Your task to perform on an android device: Turn off the flashlight Image 0: 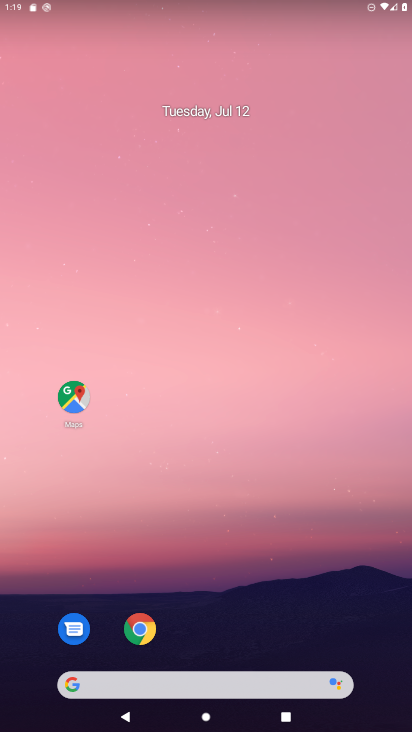
Step 0: drag from (215, 647) to (238, 0)
Your task to perform on an android device: Turn off the flashlight Image 1: 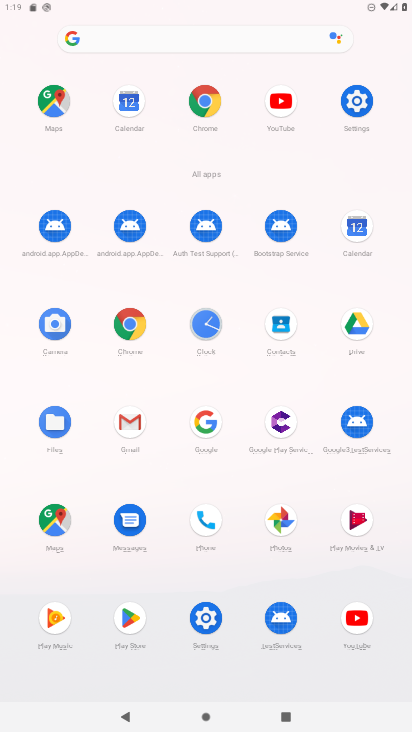
Step 1: click (363, 92)
Your task to perform on an android device: Turn off the flashlight Image 2: 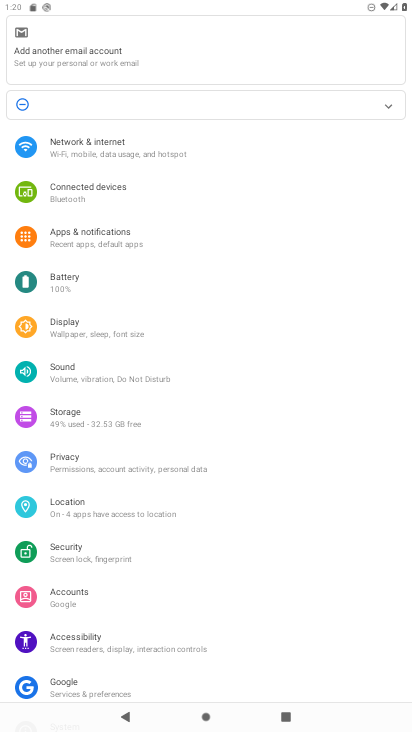
Step 2: drag from (84, 92) to (102, 600)
Your task to perform on an android device: Turn off the flashlight Image 3: 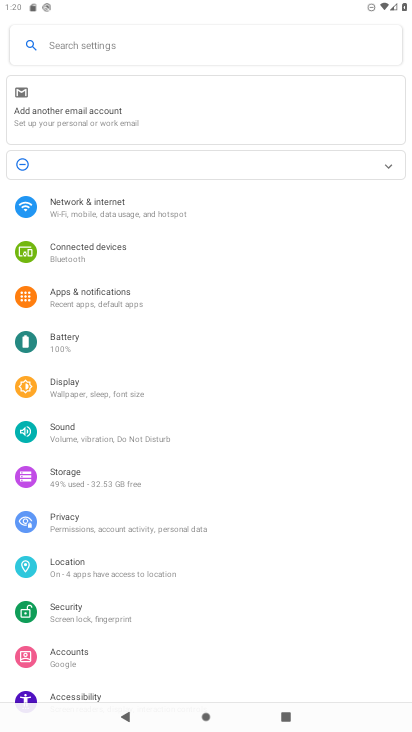
Step 3: click (96, 36)
Your task to perform on an android device: Turn off the flashlight Image 4: 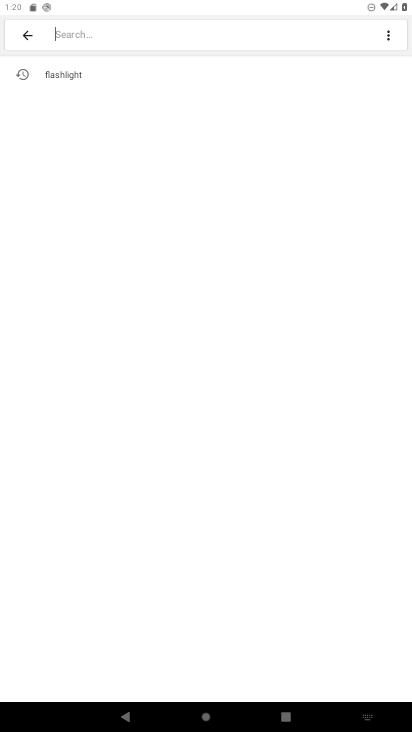
Step 4: click (64, 75)
Your task to perform on an android device: Turn off the flashlight Image 5: 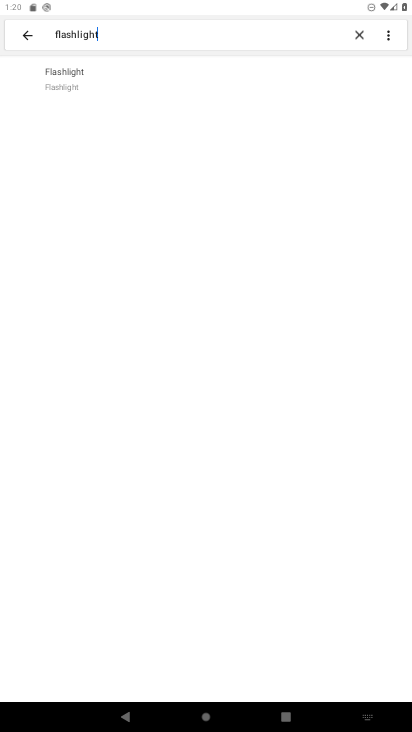
Step 5: click (69, 73)
Your task to perform on an android device: Turn off the flashlight Image 6: 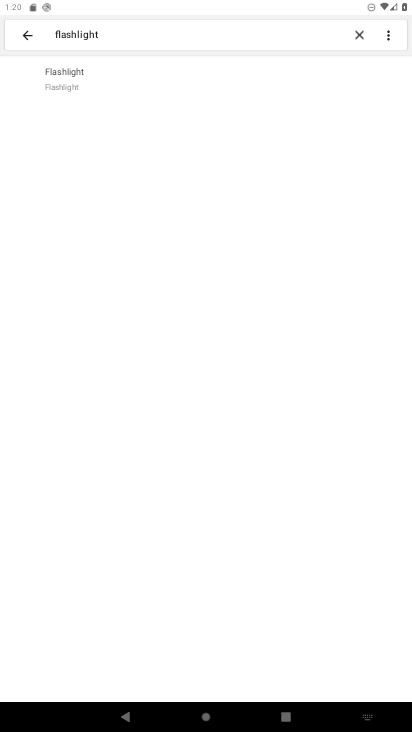
Step 6: task complete